Your task to perform on an android device: uninstall "Walmart Shopping & Grocery" Image 0: 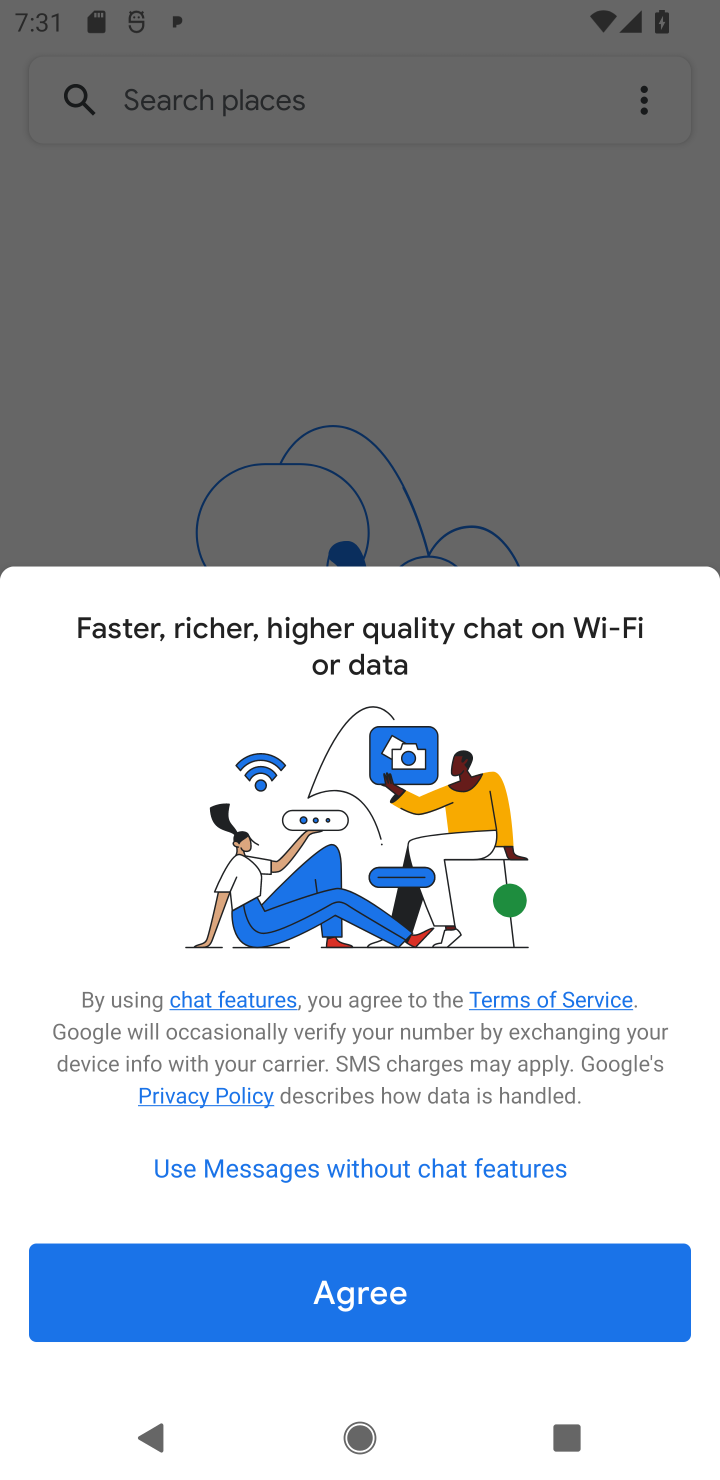
Step 0: press home button
Your task to perform on an android device: uninstall "Walmart Shopping & Grocery" Image 1: 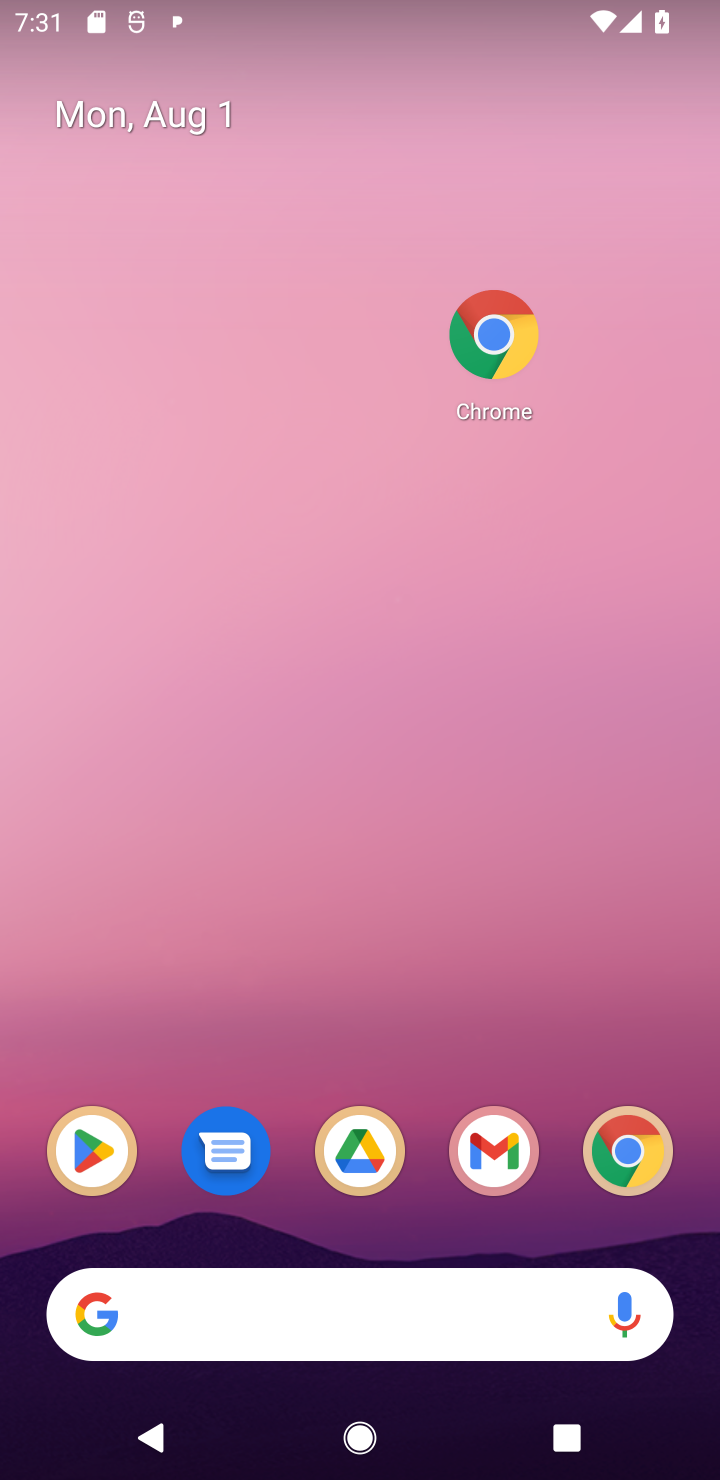
Step 1: click (98, 1163)
Your task to perform on an android device: uninstall "Walmart Shopping & Grocery" Image 2: 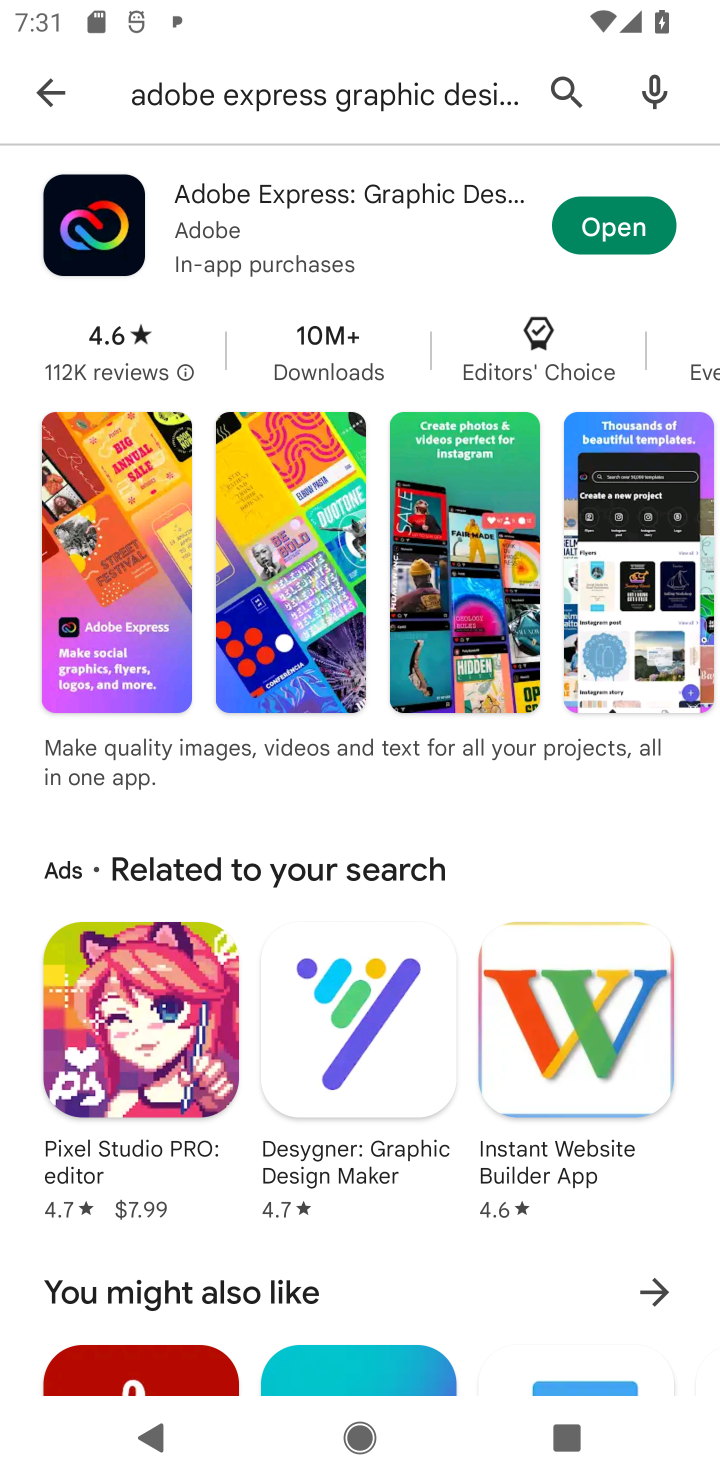
Step 2: click (559, 91)
Your task to perform on an android device: uninstall "Walmart Shopping & Grocery" Image 3: 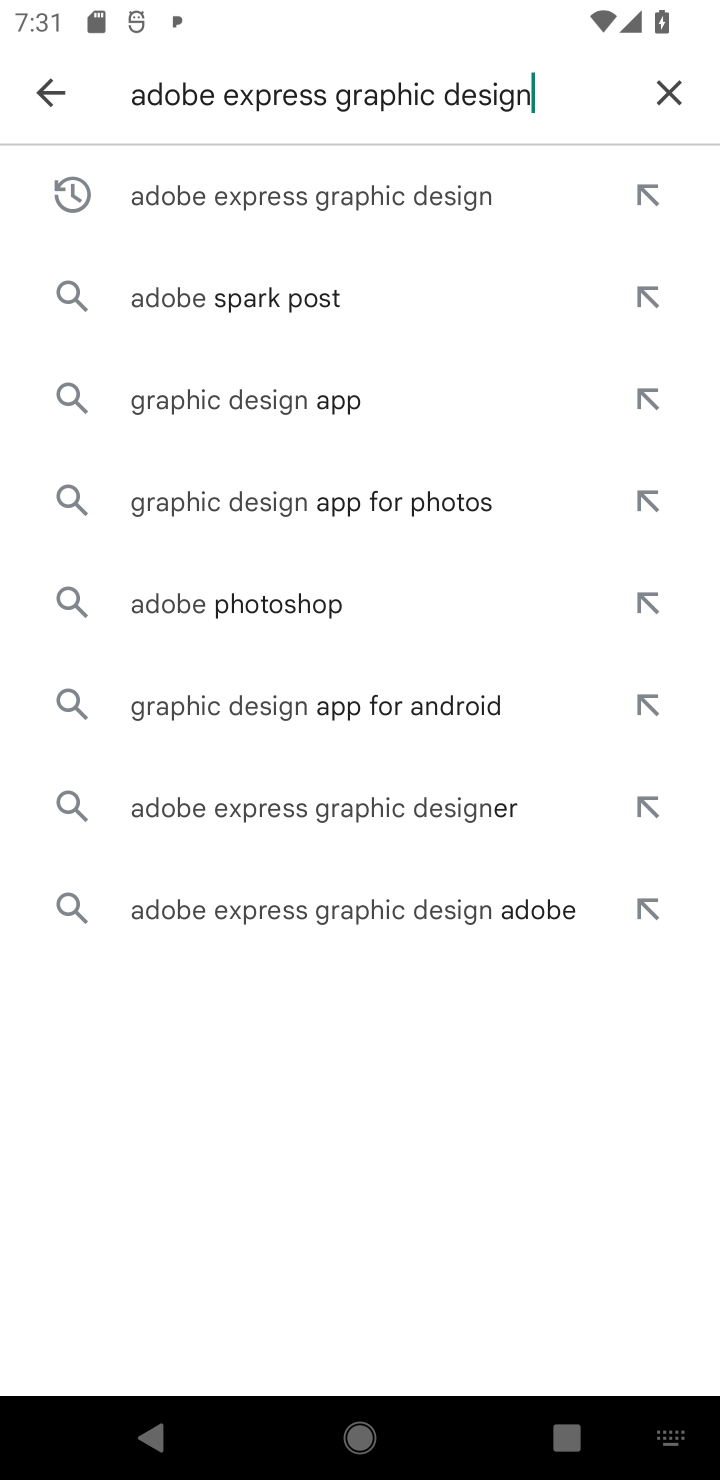
Step 3: click (654, 92)
Your task to perform on an android device: uninstall "Walmart Shopping & Grocery" Image 4: 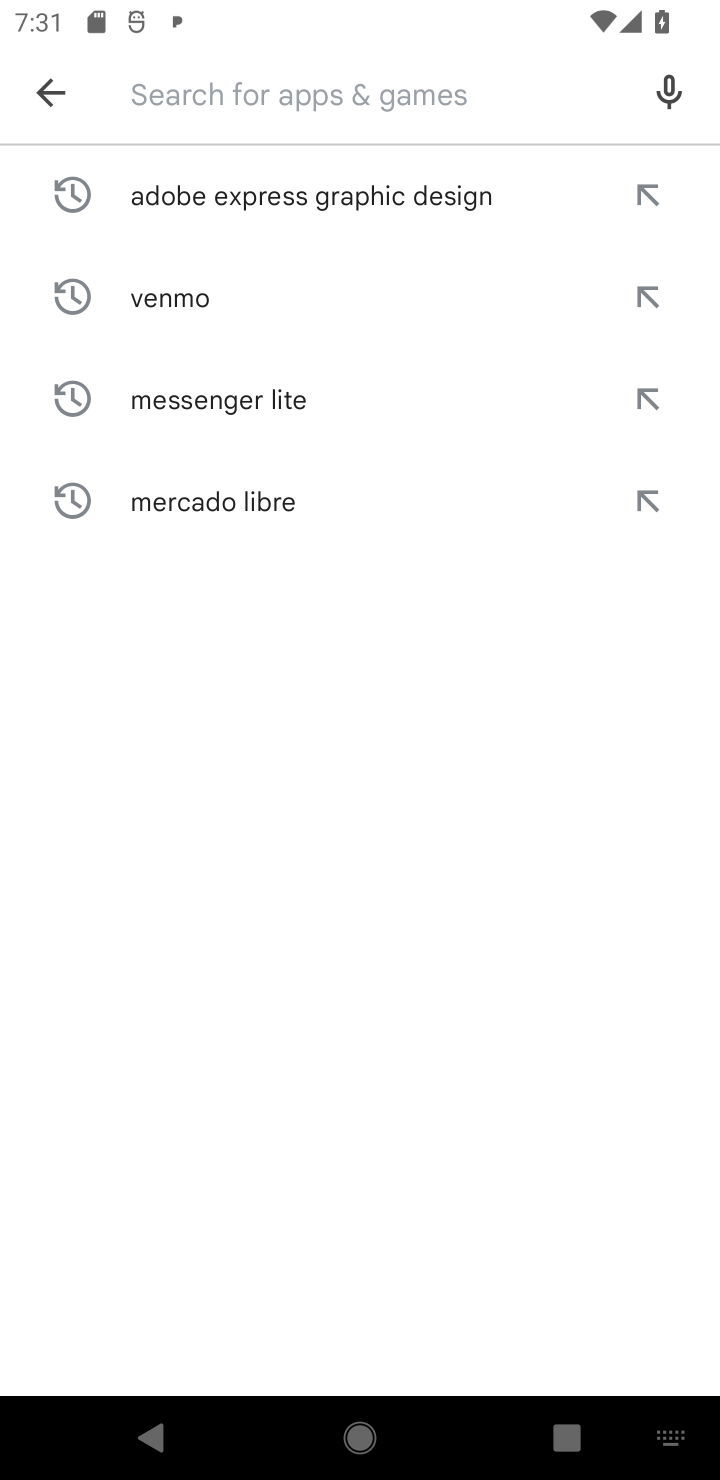
Step 4: type "Walmart Shopping & Grocery"
Your task to perform on an android device: uninstall "Walmart Shopping & Grocery" Image 5: 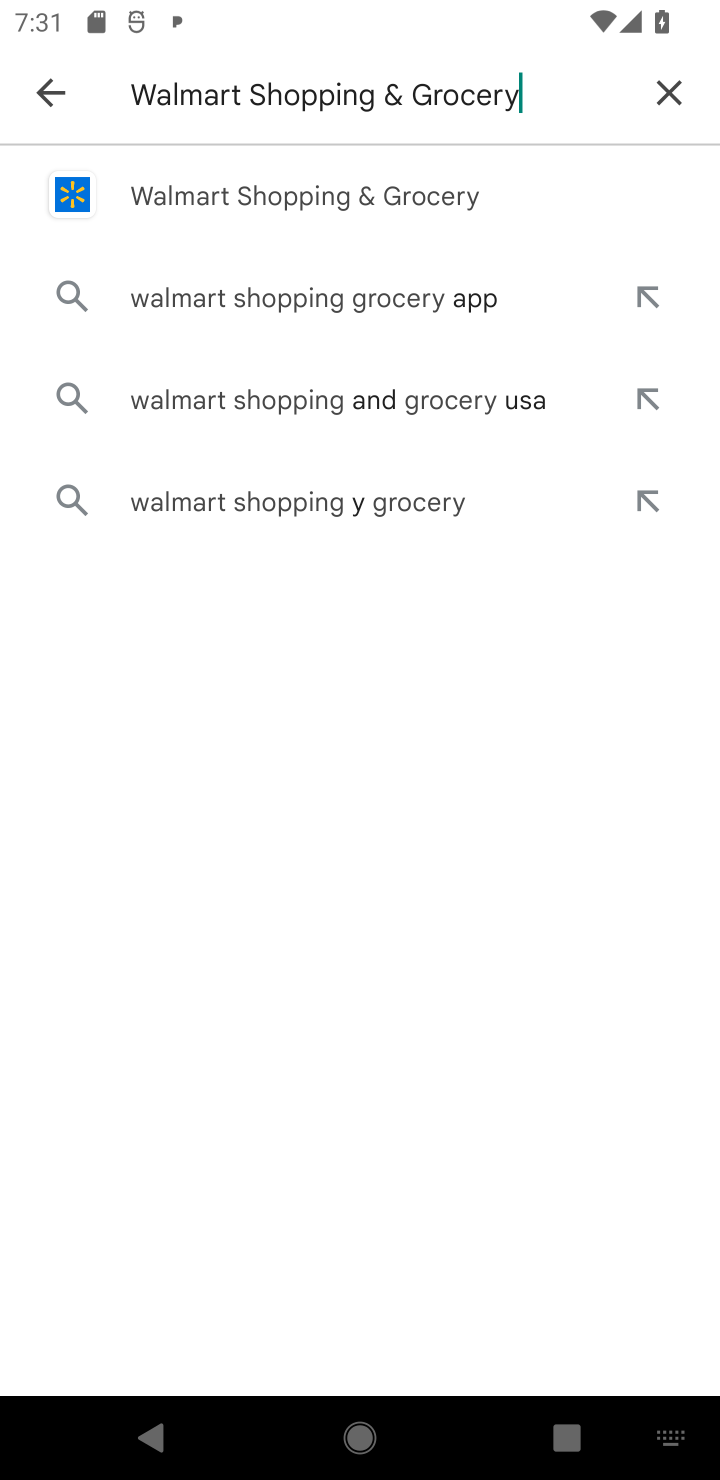
Step 5: click (277, 196)
Your task to perform on an android device: uninstall "Walmart Shopping & Grocery" Image 6: 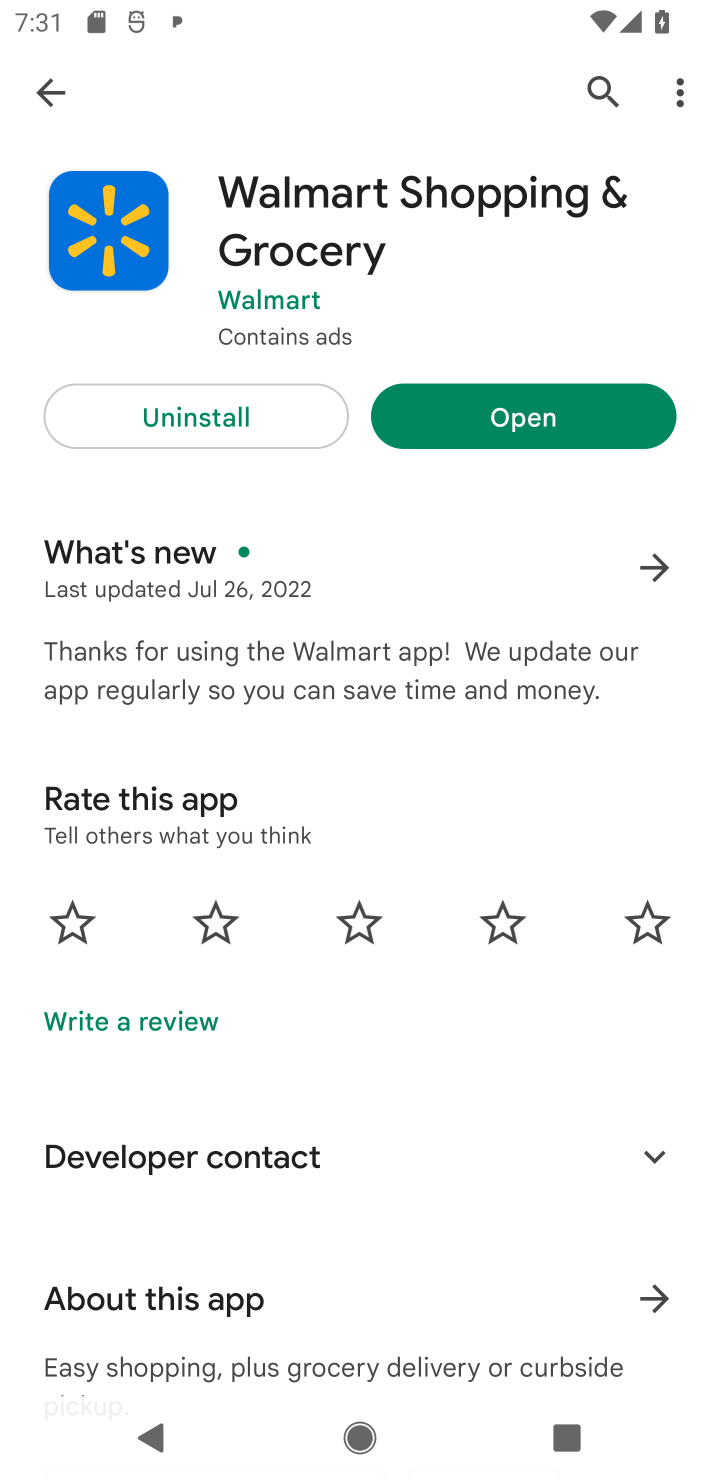
Step 6: click (192, 413)
Your task to perform on an android device: uninstall "Walmart Shopping & Grocery" Image 7: 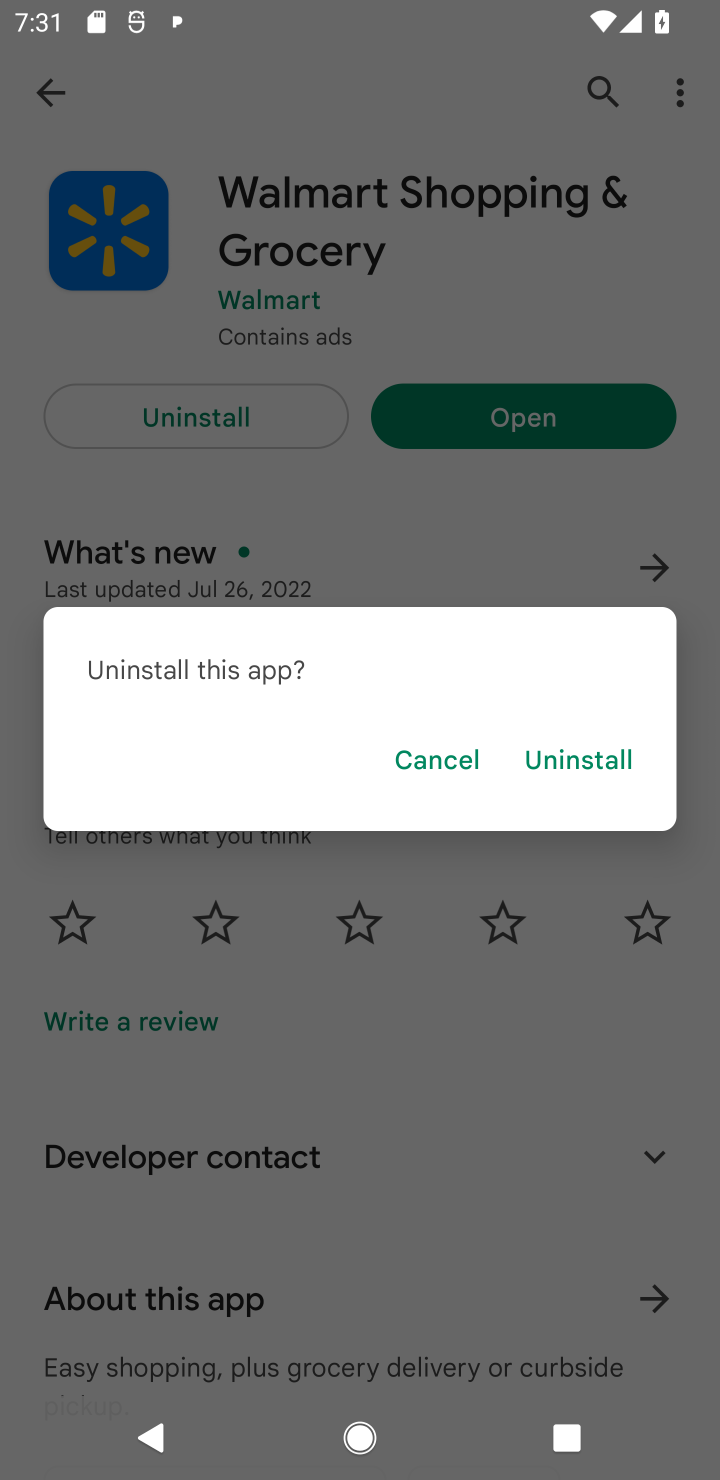
Step 7: click (556, 766)
Your task to perform on an android device: uninstall "Walmart Shopping & Grocery" Image 8: 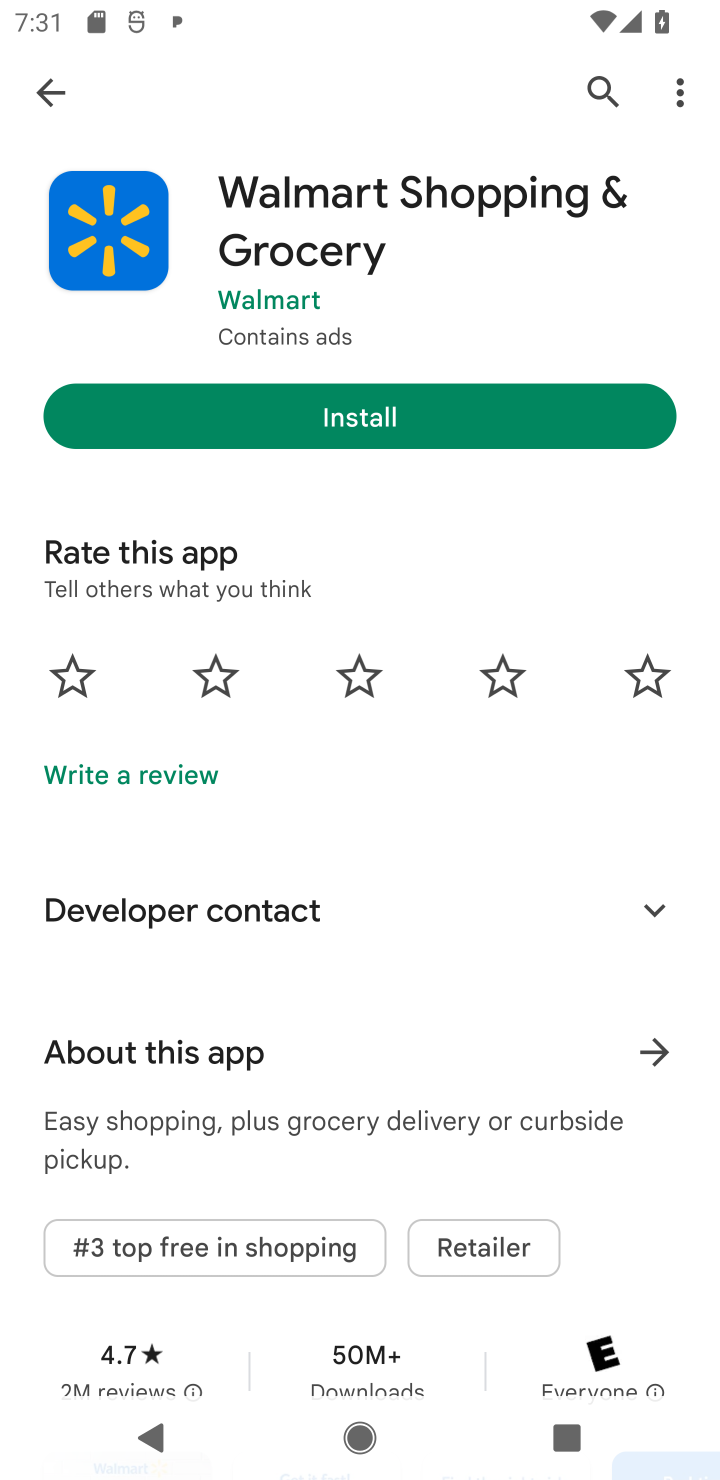
Step 8: task complete